Your task to perform on an android device: Check the news Image 0: 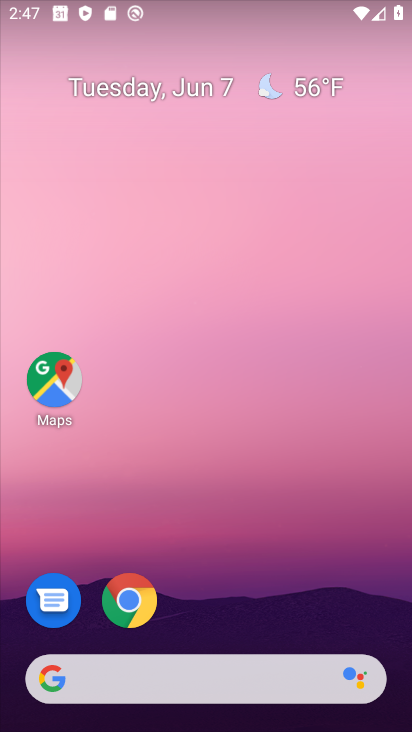
Step 0: drag from (1, 325) to (353, 360)
Your task to perform on an android device: Check the news Image 1: 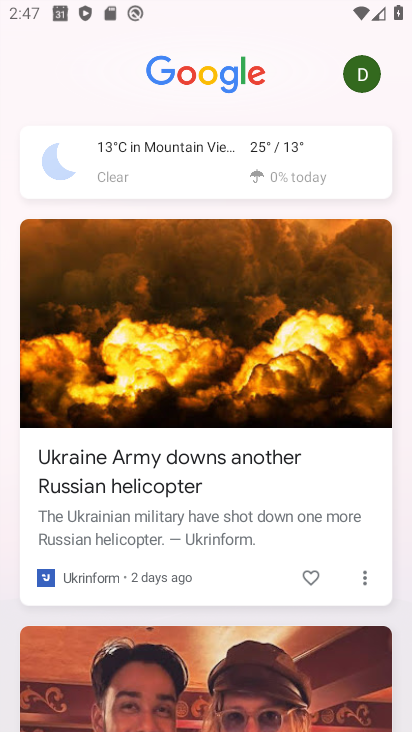
Step 1: task complete